Your task to perform on an android device: Go to eBay Image 0: 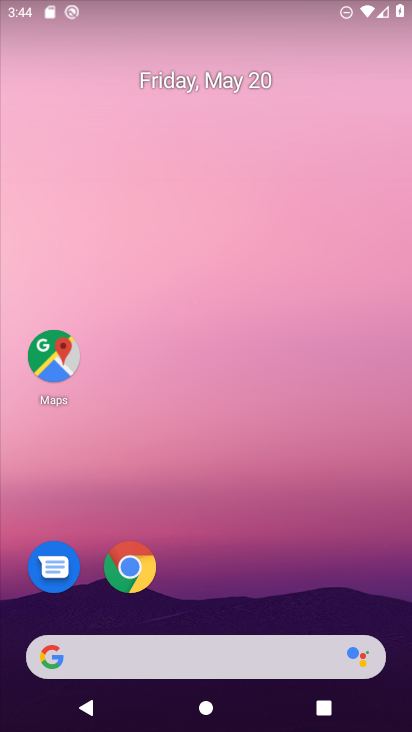
Step 0: click (134, 573)
Your task to perform on an android device: Go to eBay Image 1: 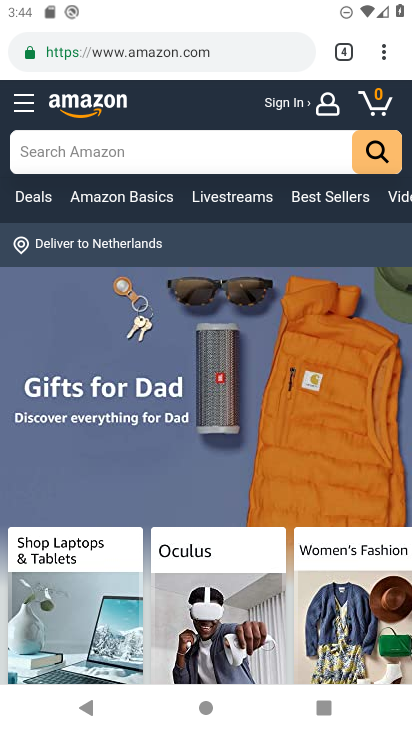
Step 1: click (386, 56)
Your task to perform on an android device: Go to eBay Image 2: 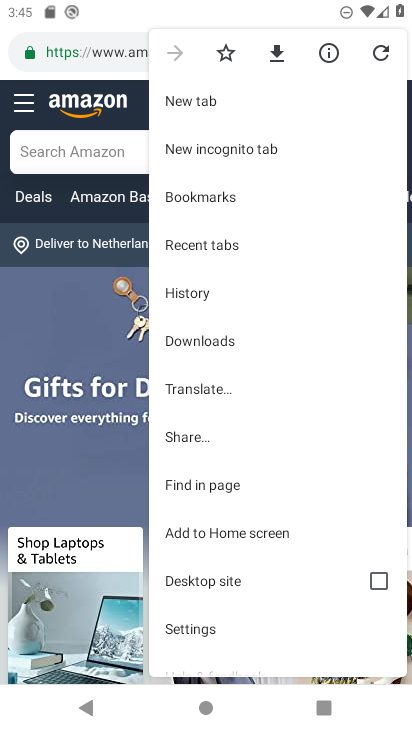
Step 2: click (194, 97)
Your task to perform on an android device: Go to eBay Image 3: 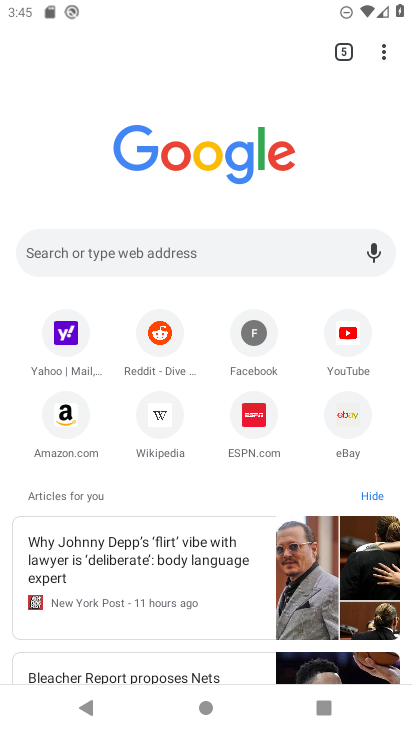
Step 3: click (348, 423)
Your task to perform on an android device: Go to eBay Image 4: 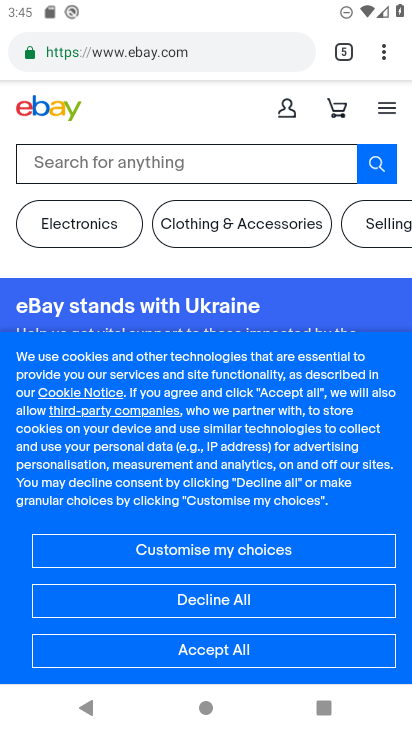
Step 4: task complete